Your task to perform on an android device: set the timer Image 0: 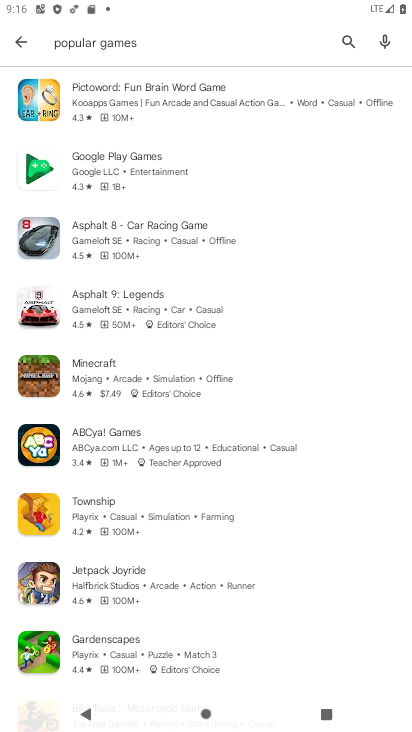
Step 0: press home button
Your task to perform on an android device: set the timer Image 1: 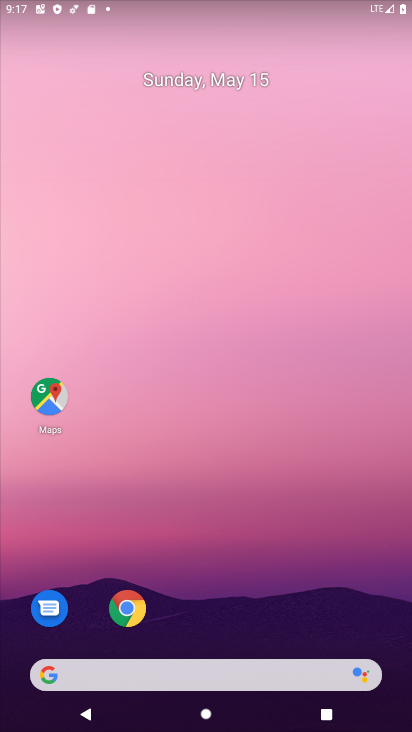
Step 1: drag from (266, 530) to (227, 86)
Your task to perform on an android device: set the timer Image 2: 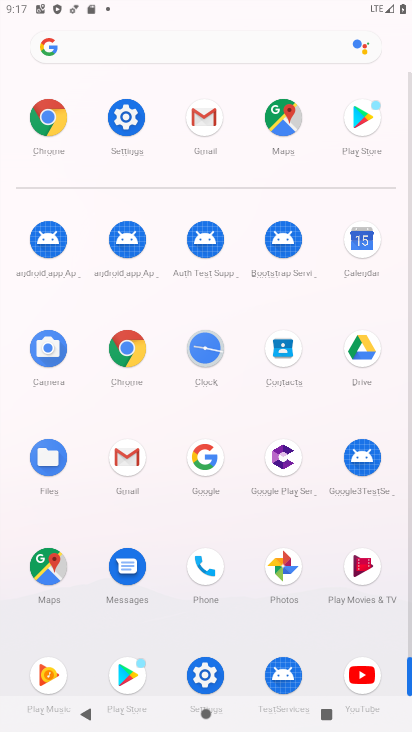
Step 2: click (200, 342)
Your task to perform on an android device: set the timer Image 3: 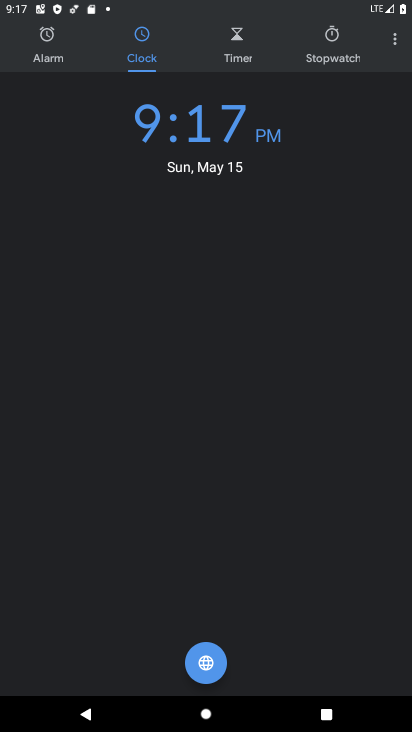
Step 3: click (245, 51)
Your task to perform on an android device: set the timer Image 4: 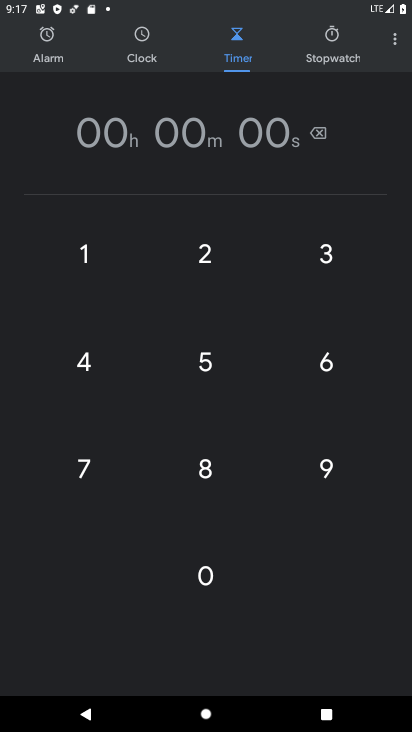
Step 4: click (80, 269)
Your task to perform on an android device: set the timer Image 5: 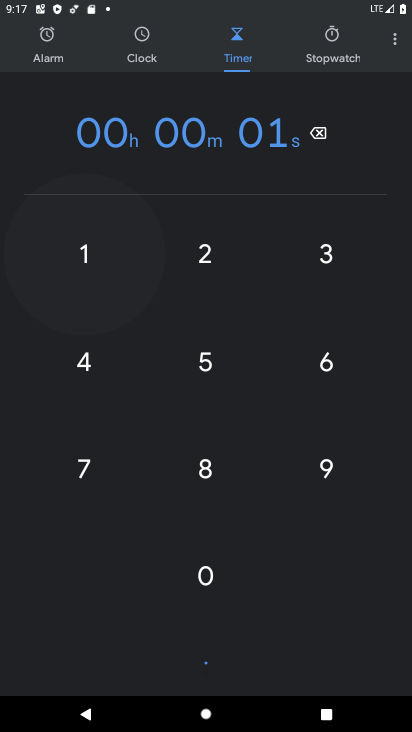
Step 5: click (83, 339)
Your task to perform on an android device: set the timer Image 6: 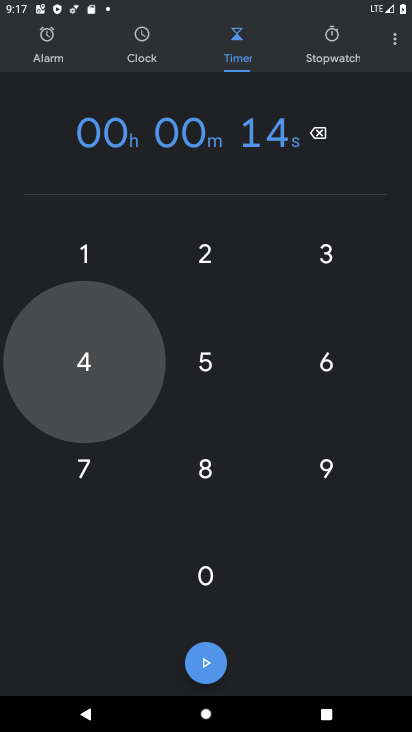
Step 6: click (92, 298)
Your task to perform on an android device: set the timer Image 7: 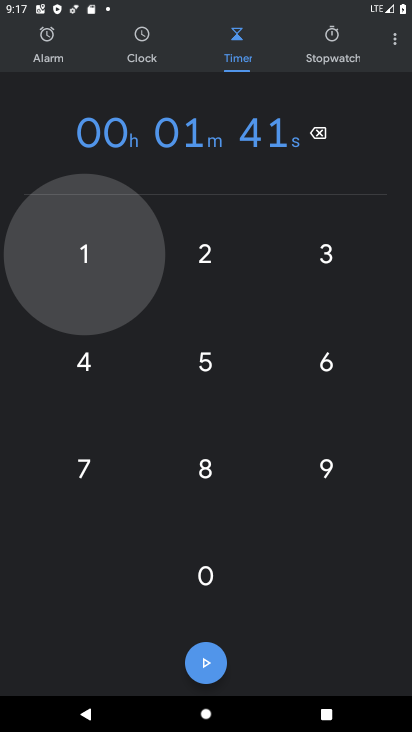
Step 7: click (84, 359)
Your task to perform on an android device: set the timer Image 8: 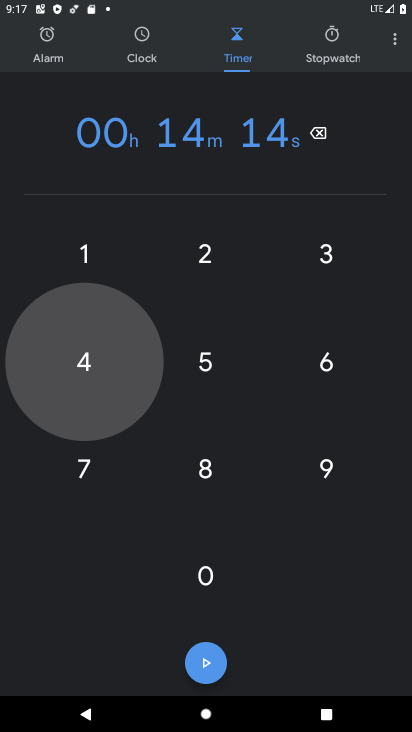
Step 8: click (88, 309)
Your task to perform on an android device: set the timer Image 9: 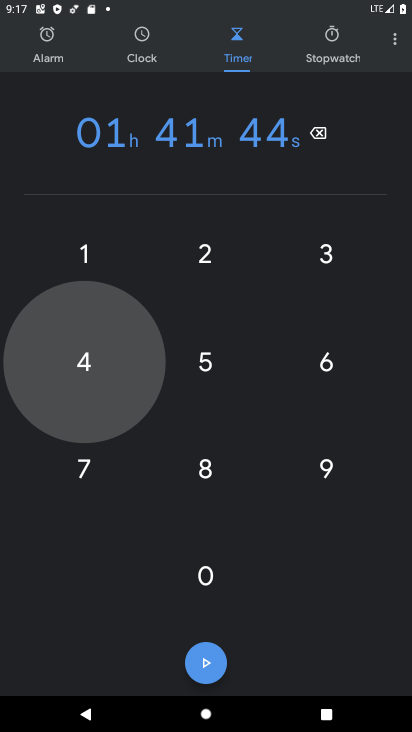
Step 9: click (83, 376)
Your task to perform on an android device: set the timer Image 10: 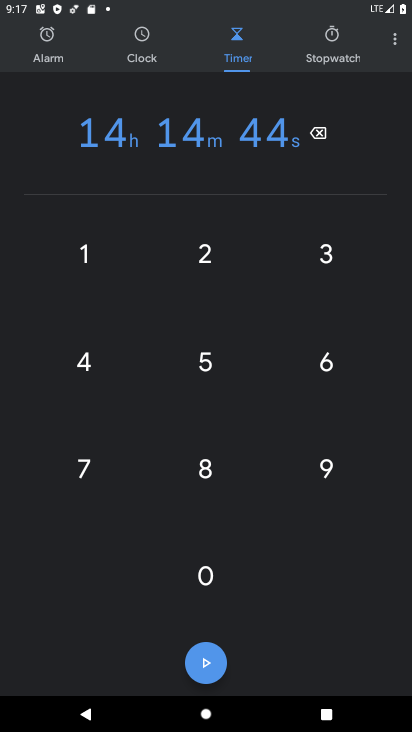
Step 10: click (199, 660)
Your task to perform on an android device: set the timer Image 11: 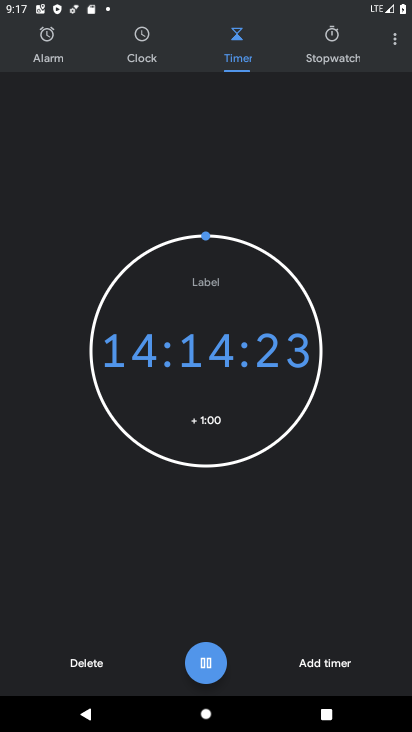
Step 11: task complete